Your task to perform on an android device: Go to eBay Image 0: 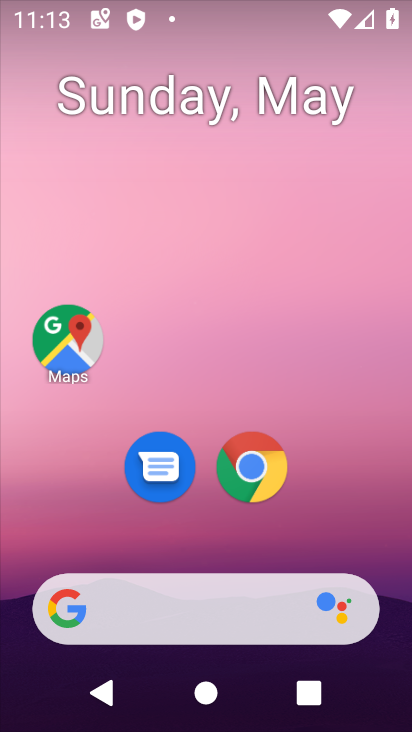
Step 0: click (258, 465)
Your task to perform on an android device: Go to eBay Image 1: 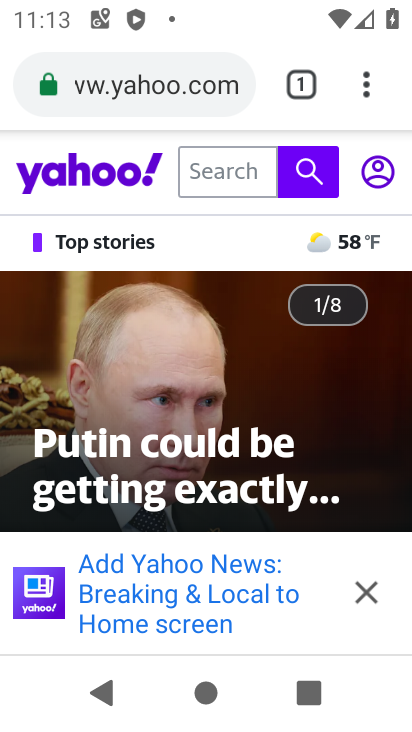
Step 1: click (118, 84)
Your task to perform on an android device: Go to eBay Image 2: 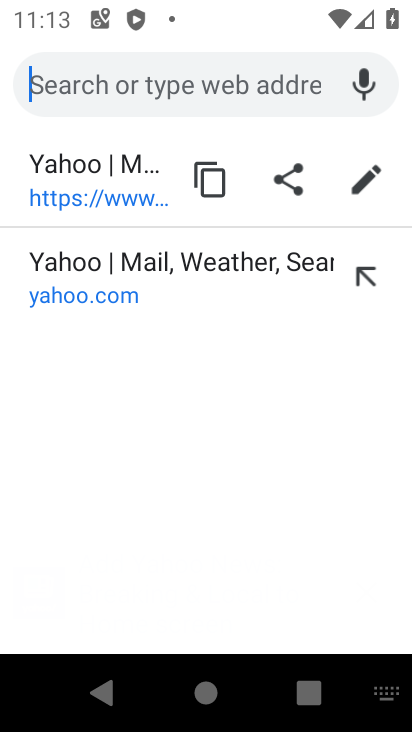
Step 2: type "ebay"
Your task to perform on an android device: Go to eBay Image 3: 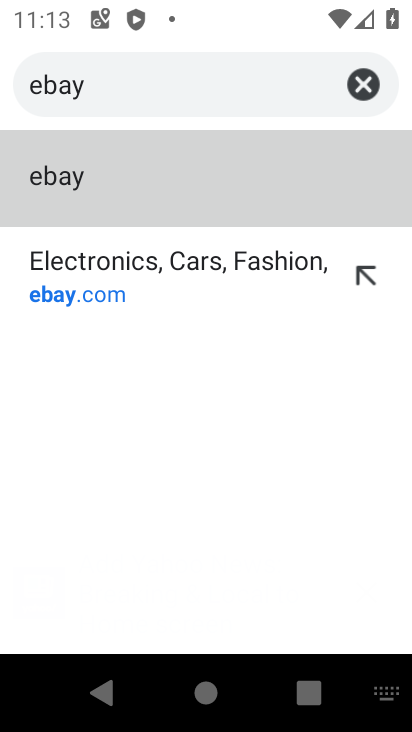
Step 3: click (65, 177)
Your task to perform on an android device: Go to eBay Image 4: 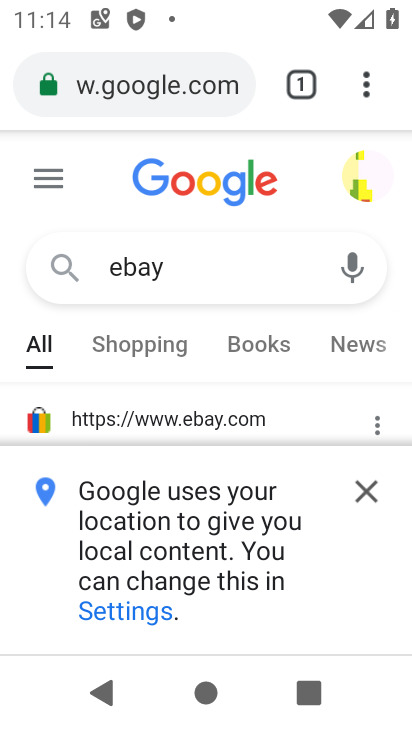
Step 4: click (371, 494)
Your task to perform on an android device: Go to eBay Image 5: 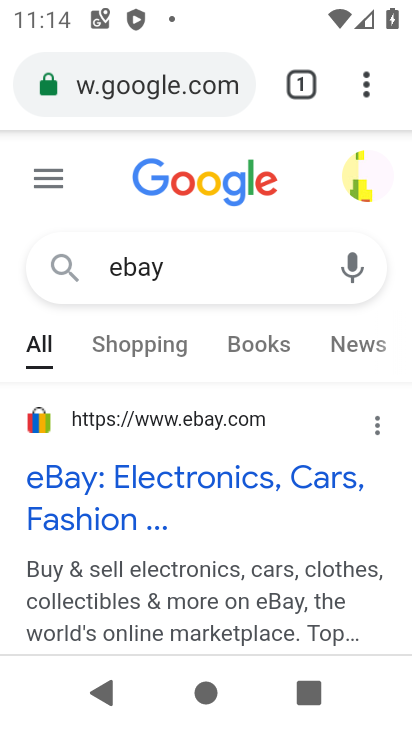
Step 5: click (87, 421)
Your task to perform on an android device: Go to eBay Image 6: 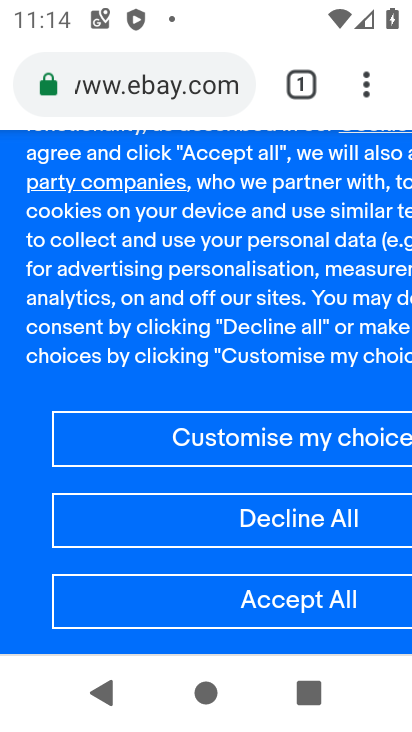
Step 6: task complete